Your task to perform on an android device: Open Youtube and go to "Your channel" Image 0: 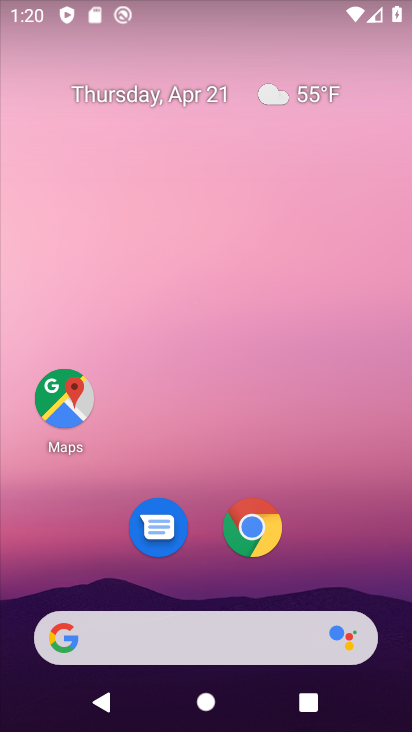
Step 0: drag from (332, 547) to (332, 71)
Your task to perform on an android device: Open Youtube and go to "Your channel" Image 1: 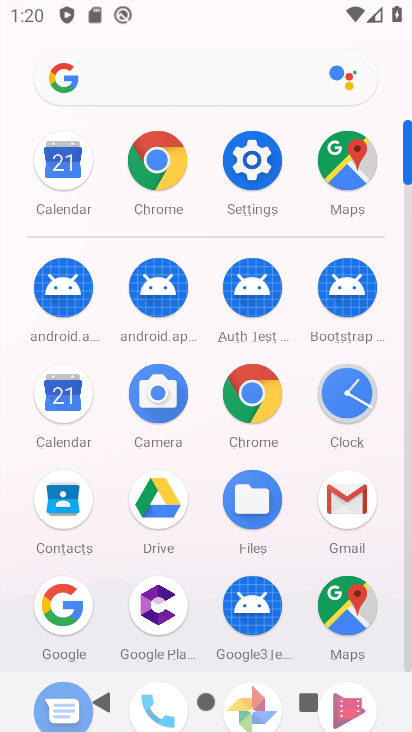
Step 1: drag from (193, 624) to (194, 201)
Your task to perform on an android device: Open Youtube and go to "Your channel" Image 2: 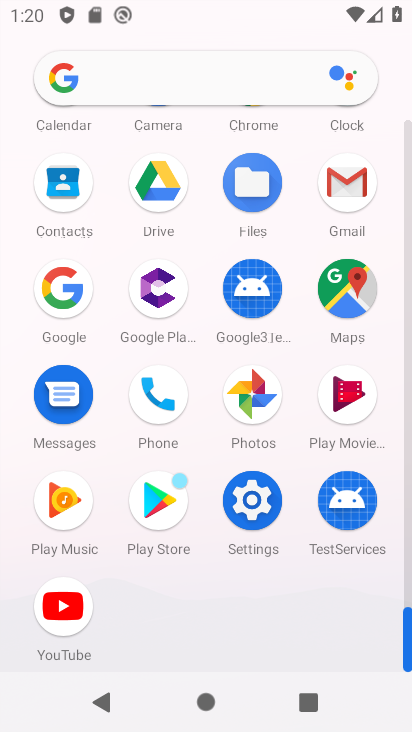
Step 2: click (64, 609)
Your task to perform on an android device: Open Youtube and go to "Your channel" Image 3: 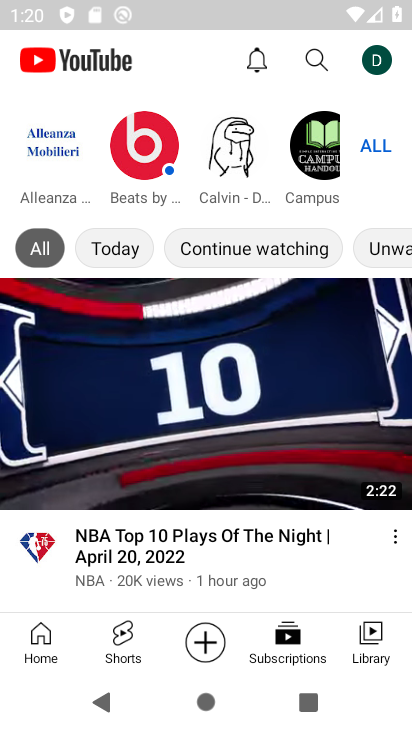
Step 3: click (378, 54)
Your task to perform on an android device: Open Youtube and go to "Your channel" Image 4: 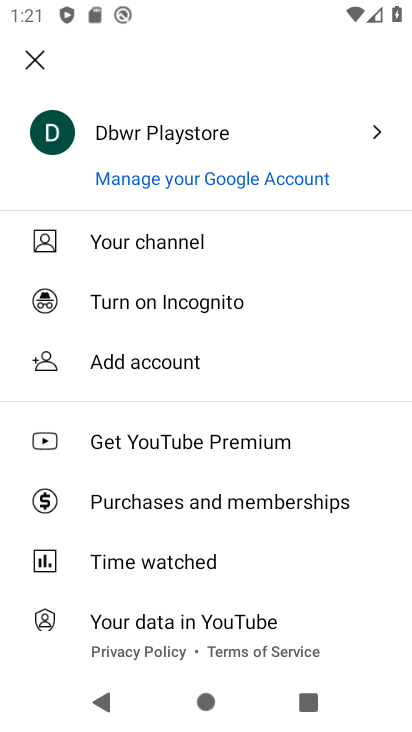
Step 4: click (189, 242)
Your task to perform on an android device: Open Youtube and go to "Your channel" Image 5: 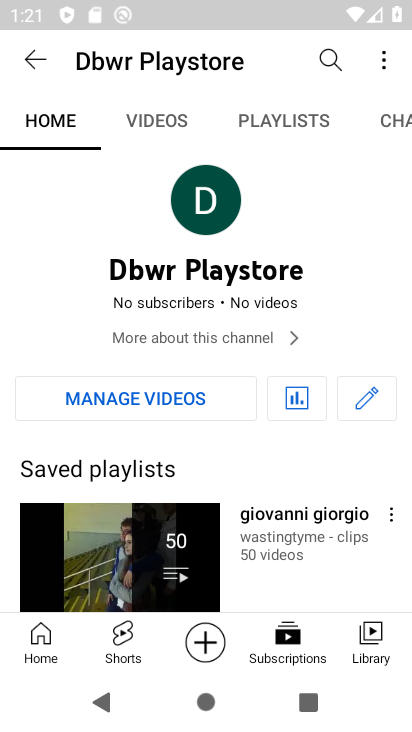
Step 5: task complete